Your task to perform on an android device: toggle priority inbox in the gmail app Image 0: 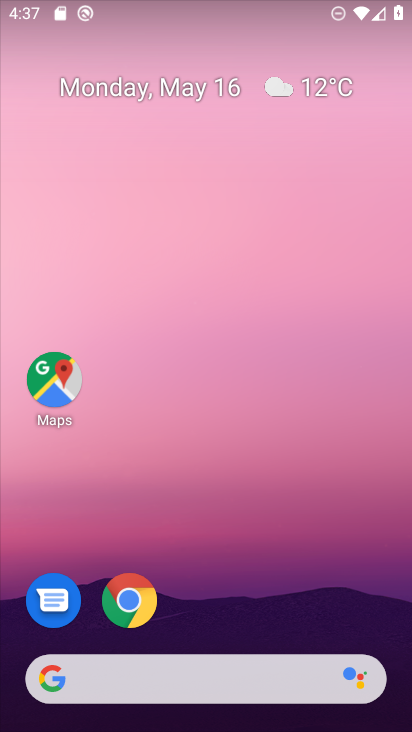
Step 0: drag from (287, 590) to (221, 89)
Your task to perform on an android device: toggle priority inbox in the gmail app Image 1: 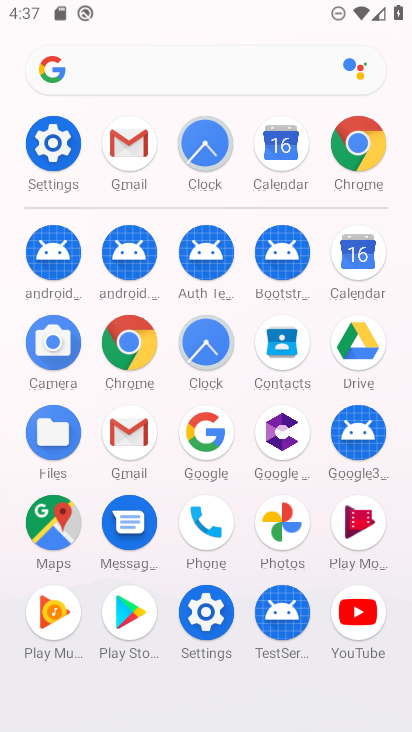
Step 1: click (136, 428)
Your task to perform on an android device: toggle priority inbox in the gmail app Image 2: 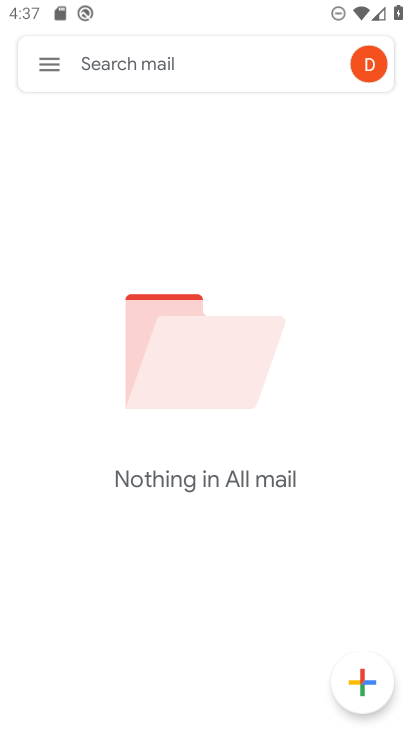
Step 2: click (53, 47)
Your task to perform on an android device: toggle priority inbox in the gmail app Image 3: 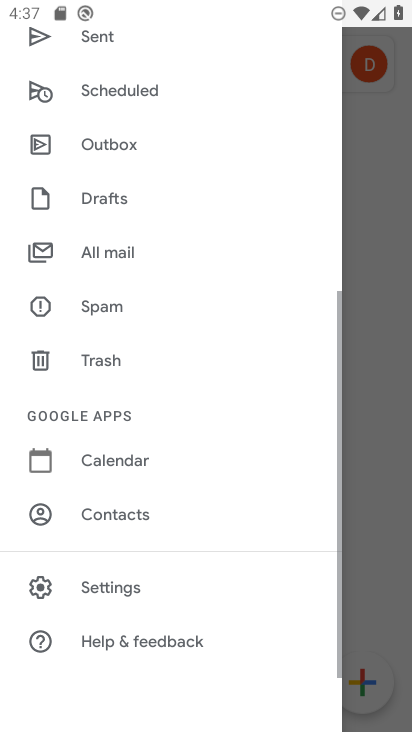
Step 3: click (164, 602)
Your task to perform on an android device: toggle priority inbox in the gmail app Image 4: 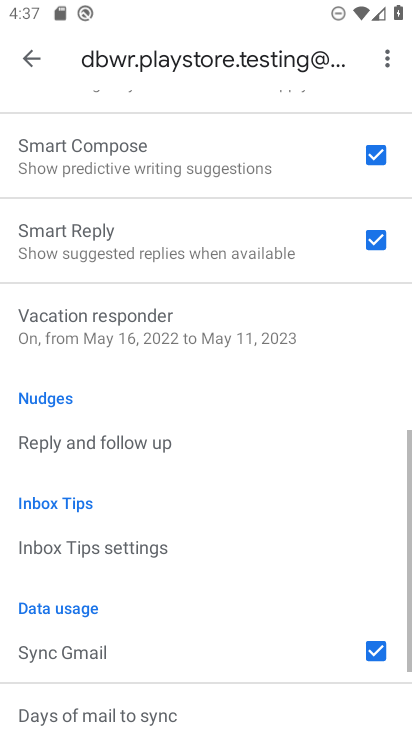
Step 4: drag from (204, 231) to (264, 671)
Your task to perform on an android device: toggle priority inbox in the gmail app Image 5: 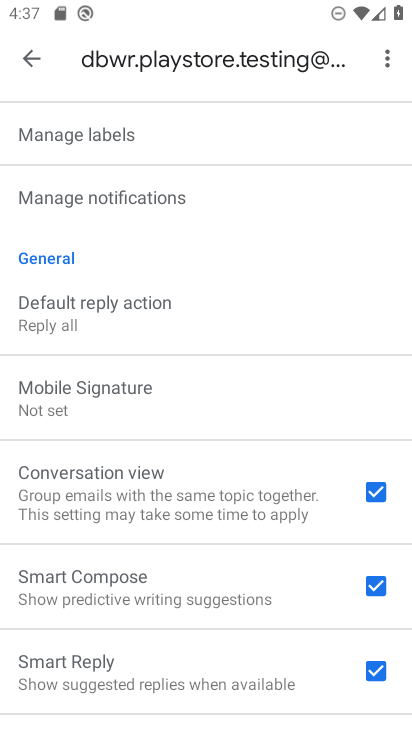
Step 5: drag from (218, 177) to (240, 599)
Your task to perform on an android device: toggle priority inbox in the gmail app Image 6: 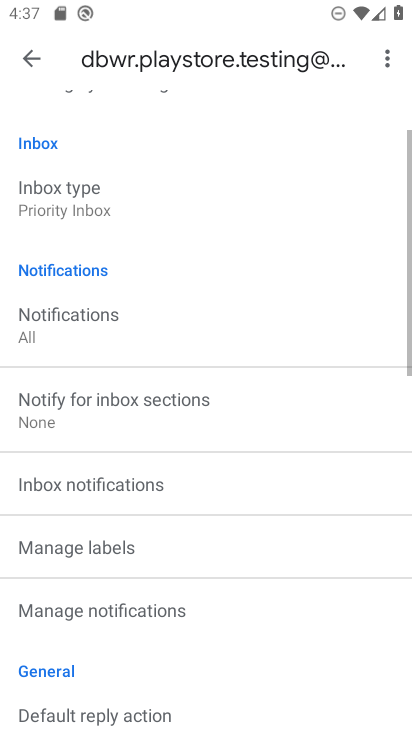
Step 6: drag from (238, 172) to (263, 525)
Your task to perform on an android device: toggle priority inbox in the gmail app Image 7: 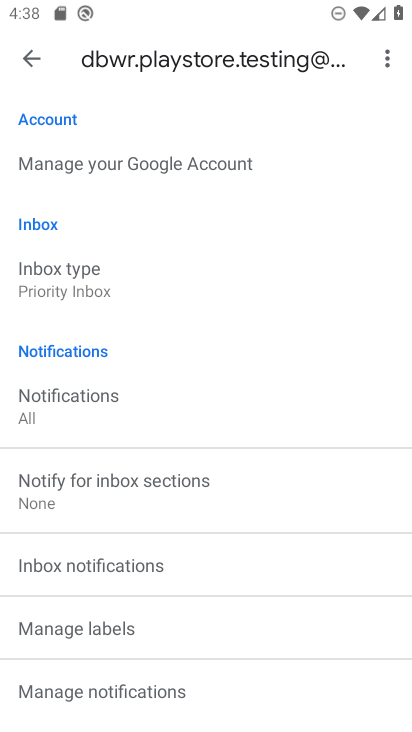
Step 7: click (69, 279)
Your task to perform on an android device: toggle priority inbox in the gmail app Image 8: 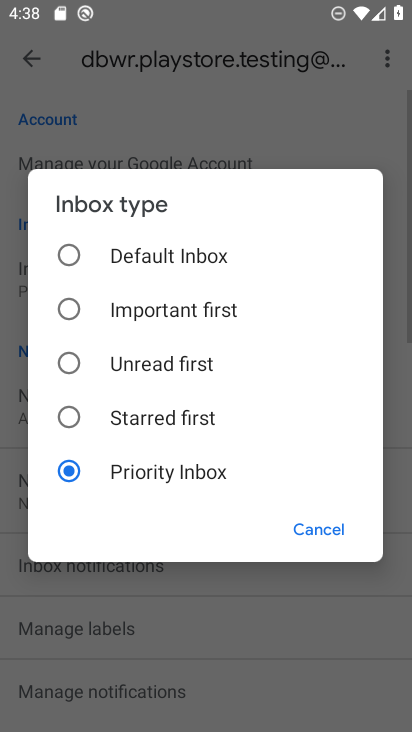
Step 8: click (150, 434)
Your task to perform on an android device: toggle priority inbox in the gmail app Image 9: 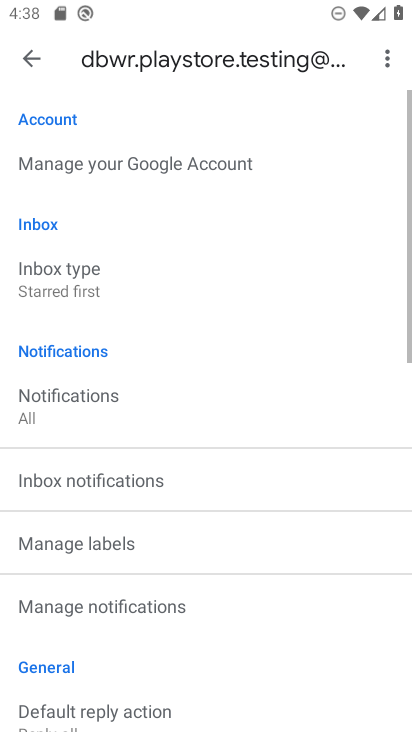
Step 9: task complete